Your task to perform on an android device: turn off picture-in-picture Image 0: 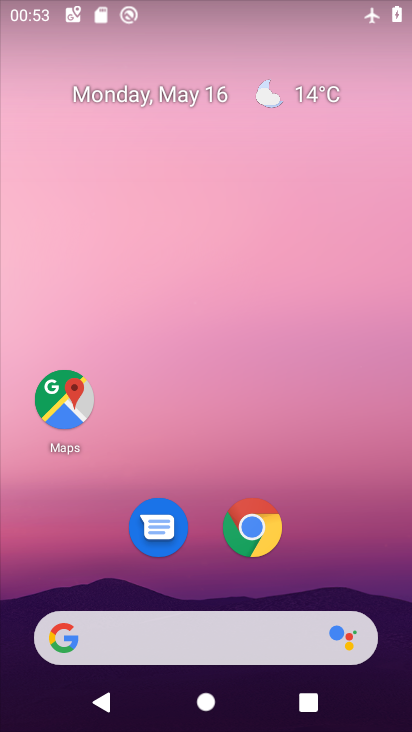
Step 0: click (266, 528)
Your task to perform on an android device: turn off picture-in-picture Image 1: 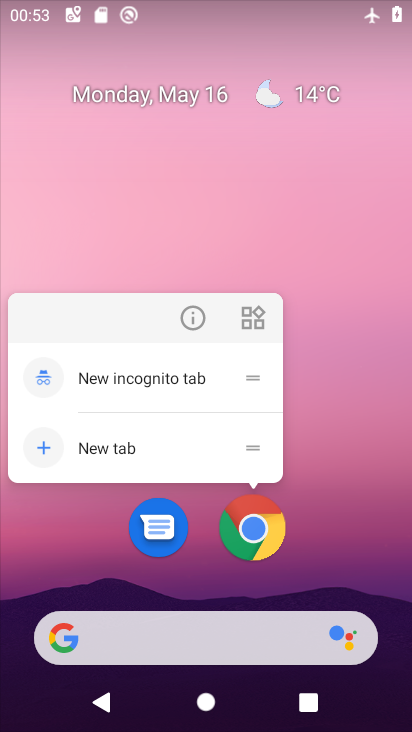
Step 1: click (192, 318)
Your task to perform on an android device: turn off picture-in-picture Image 2: 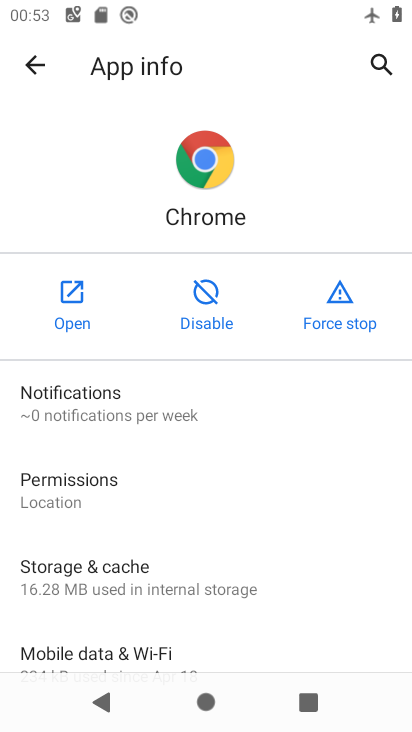
Step 2: drag from (128, 591) to (234, 101)
Your task to perform on an android device: turn off picture-in-picture Image 3: 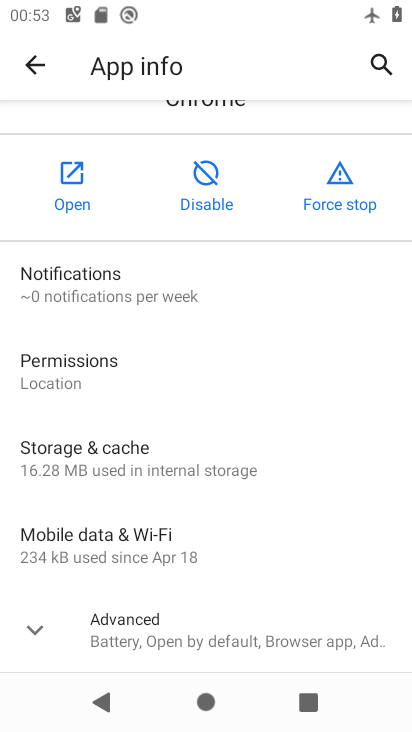
Step 3: click (135, 616)
Your task to perform on an android device: turn off picture-in-picture Image 4: 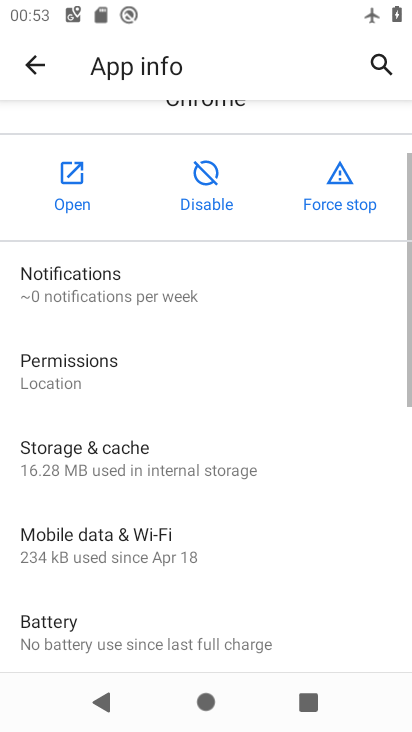
Step 4: drag from (133, 628) to (138, 133)
Your task to perform on an android device: turn off picture-in-picture Image 5: 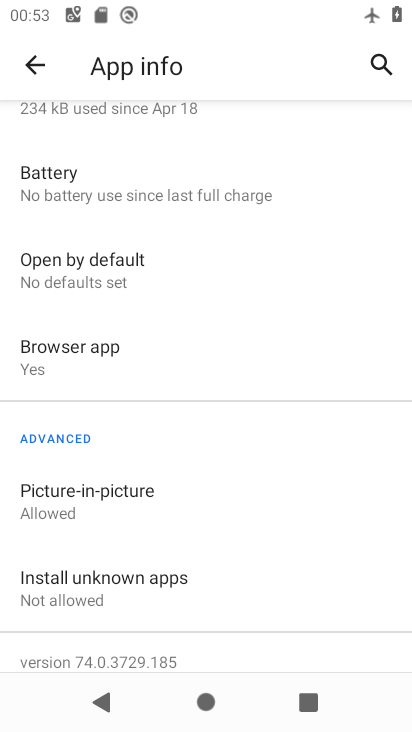
Step 5: drag from (78, 584) to (91, 477)
Your task to perform on an android device: turn off picture-in-picture Image 6: 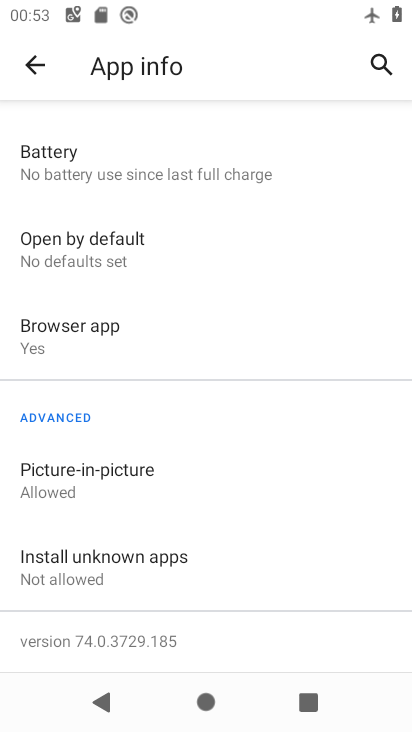
Step 6: click (72, 483)
Your task to perform on an android device: turn off picture-in-picture Image 7: 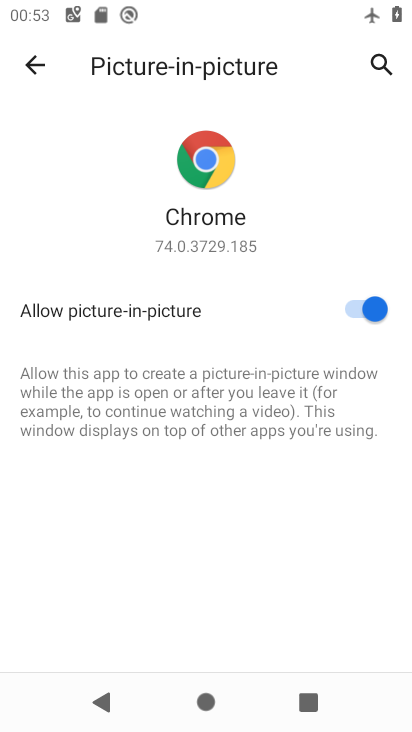
Step 7: click (342, 306)
Your task to perform on an android device: turn off picture-in-picture Image 8: 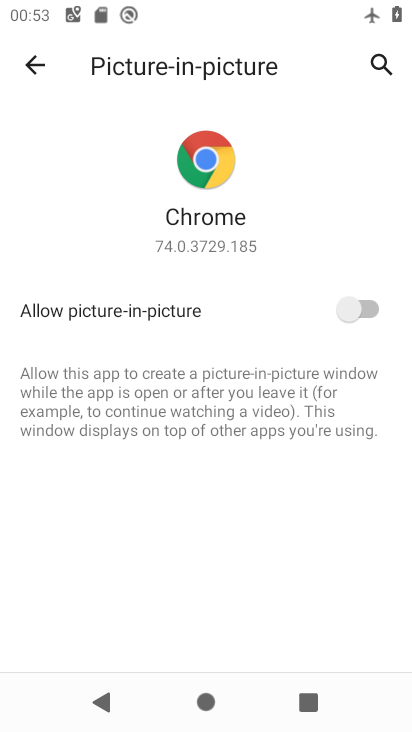
Step 8: task complete